Your task to perform on an android device: toggle airplane mode Image 0: 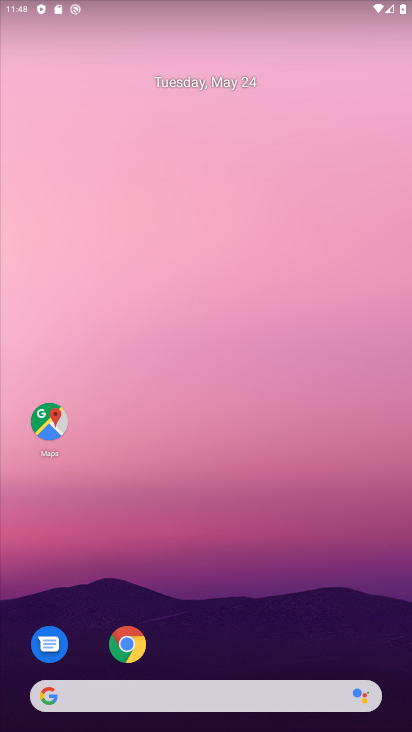
Step 0: drag from (256, 546) to (214, 154)
Your task to perform on an android device: toggle airplane mode Image 1: 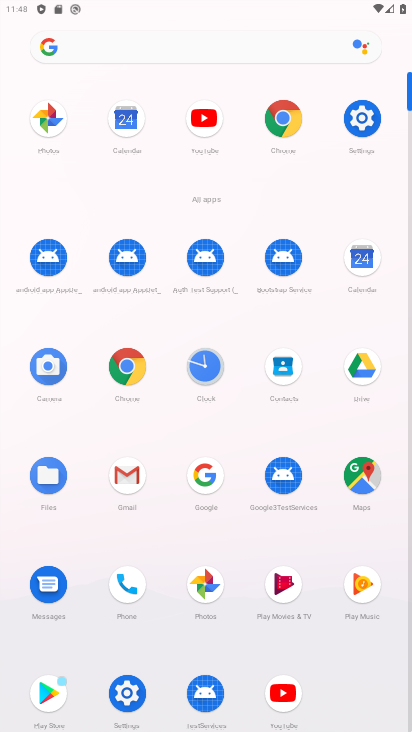
Step 1: click (358, 121)
Your task to perform on an android device: toggle airplane mode Image 2: 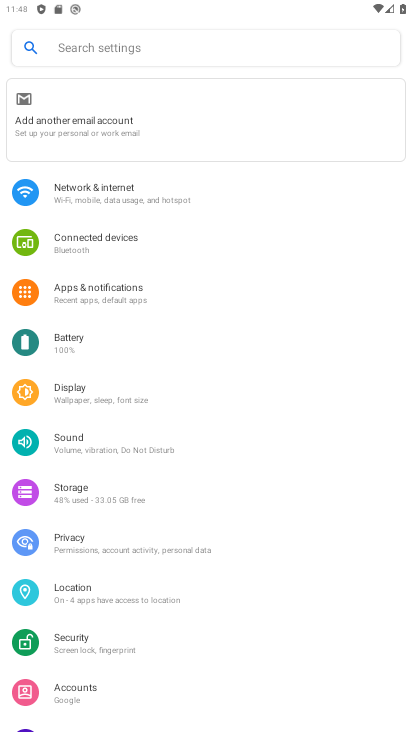
Step 2: click (98, 192)
Your task to perform on an android device: toggle airplane mode Image 3: 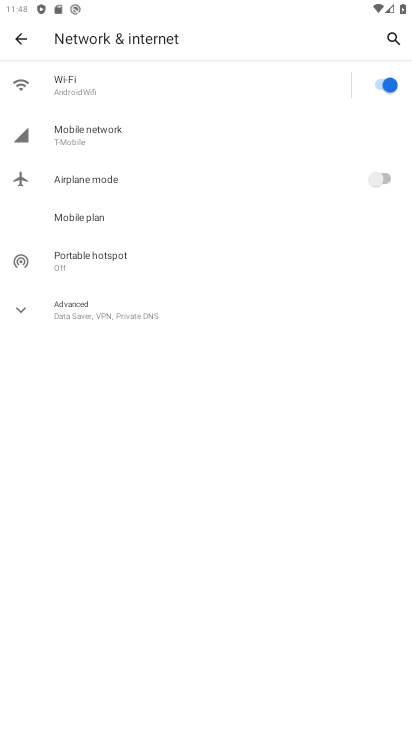
Step 3: click (365, 170)
Your task to perform on an android device: toggle airplane mode Image 4: 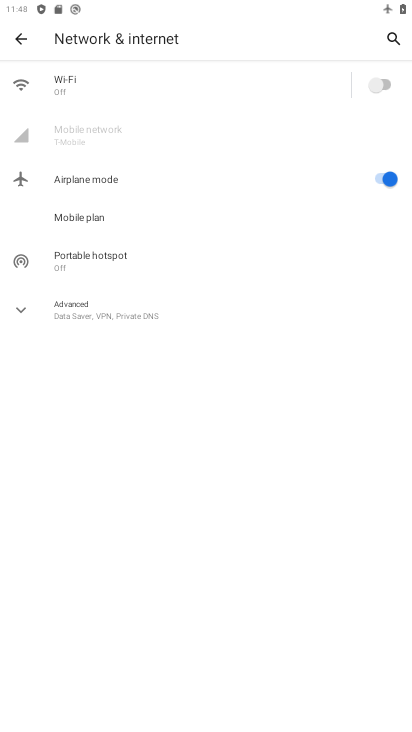
Step 4: task complete